Your task to perform on an android device: Check the news Image 0: 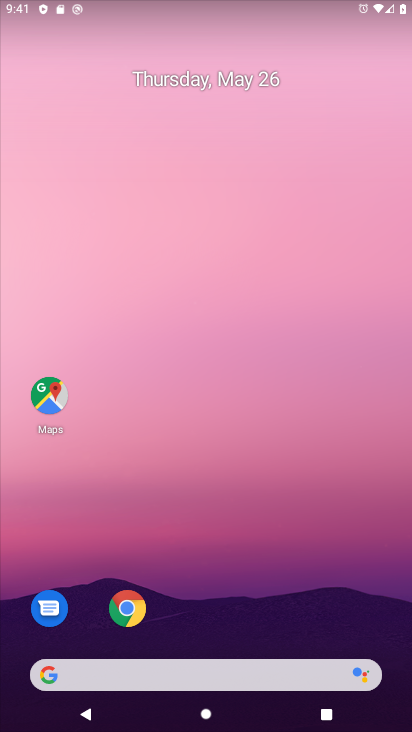
Step 0: drag from (277, 559) to (228, 69)
Your task to perform on an android device: Check the news Image 1: 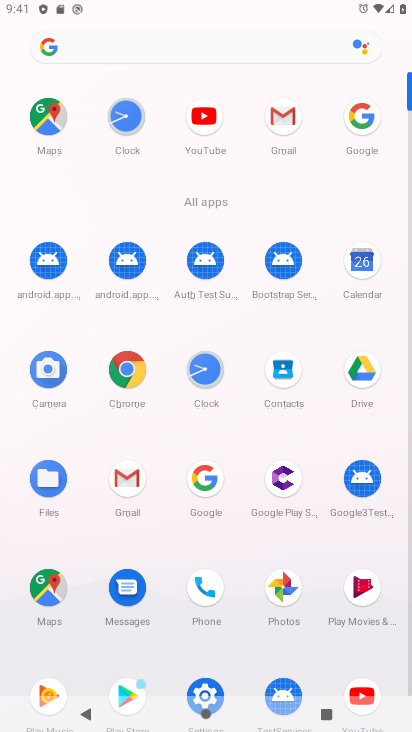
Step 1: click (209, 482)
Your task to perform on an android device: Check the news Image 2: 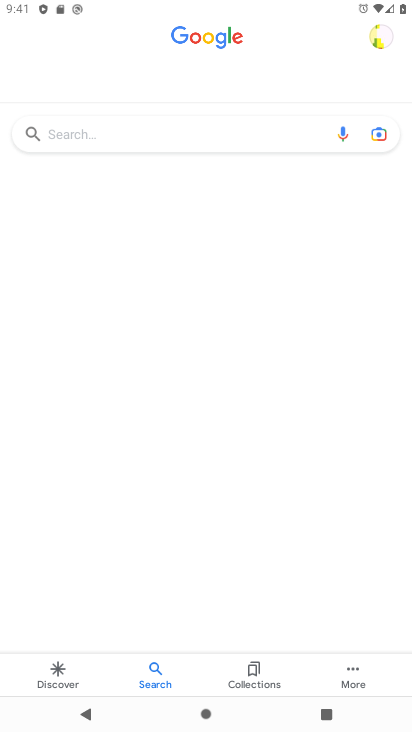
Step 2: click (183, 128)
Your task to perform on an android device: Check the news Image 3: 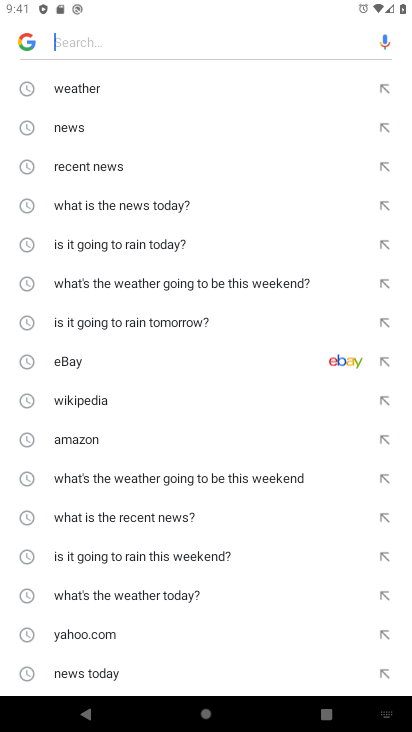
Step 3: click (97, 129)
Your task to perform on an android device: Check the news Image 4: 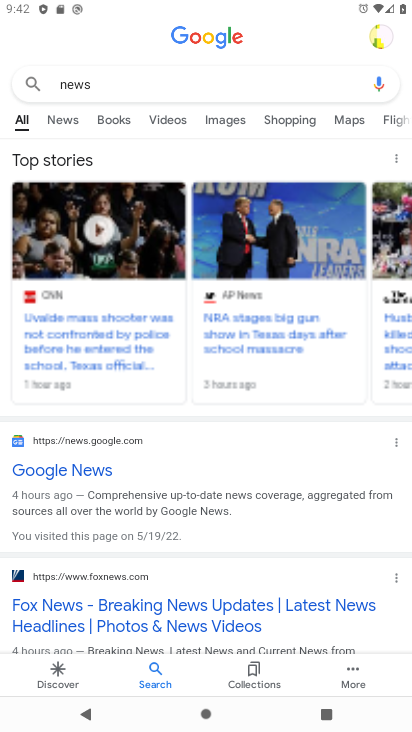
Step 4: task complete